Your task to perform on an android device: Show the shopping cart on ebay.com. Search for "dell xps" on ebay.com, select the first entry, and add it to the cart. Image 0: 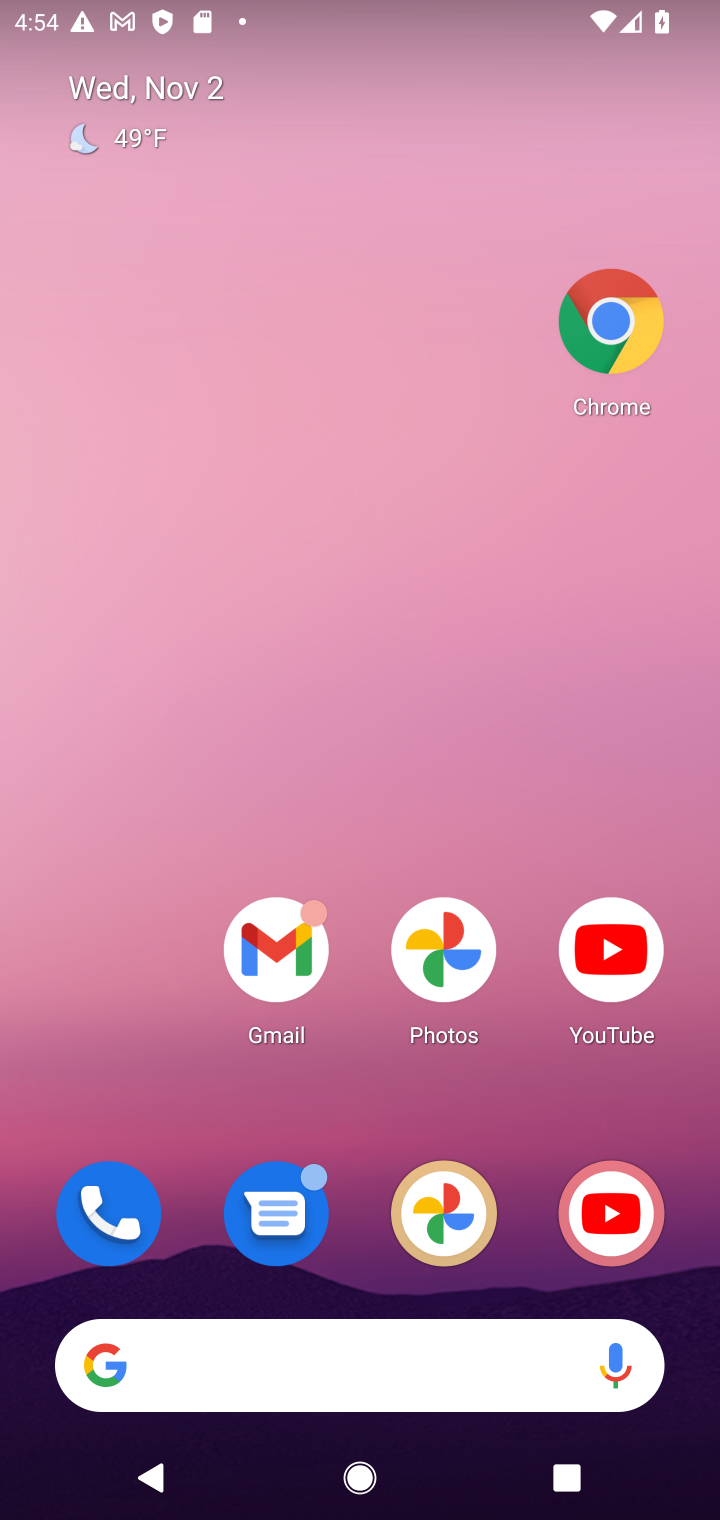
Step 0: drag from (154, 1012) to (273, 27)
Your task to perform on an android device: Show the shopping cart on ebay.com. Search for "dell xps" on ebay.com, select the first entry, and add it to the cart. Image 1: 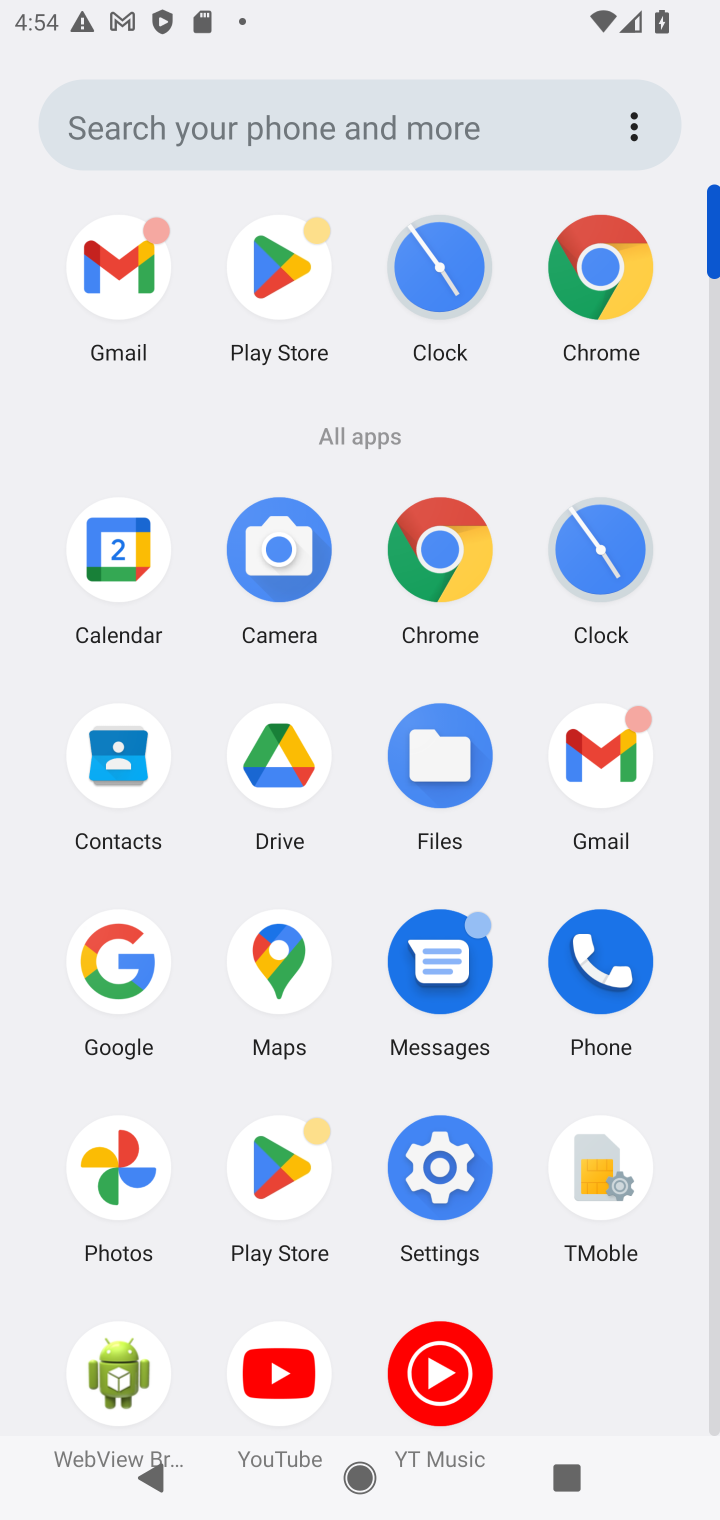
Step 1: click (131, 1000)
Your task to perform on an android device: Show the shopping cart on ebay.com. Search for "dell xps" on ebay.com, select the first entry, and add it to the cart. Image 2: 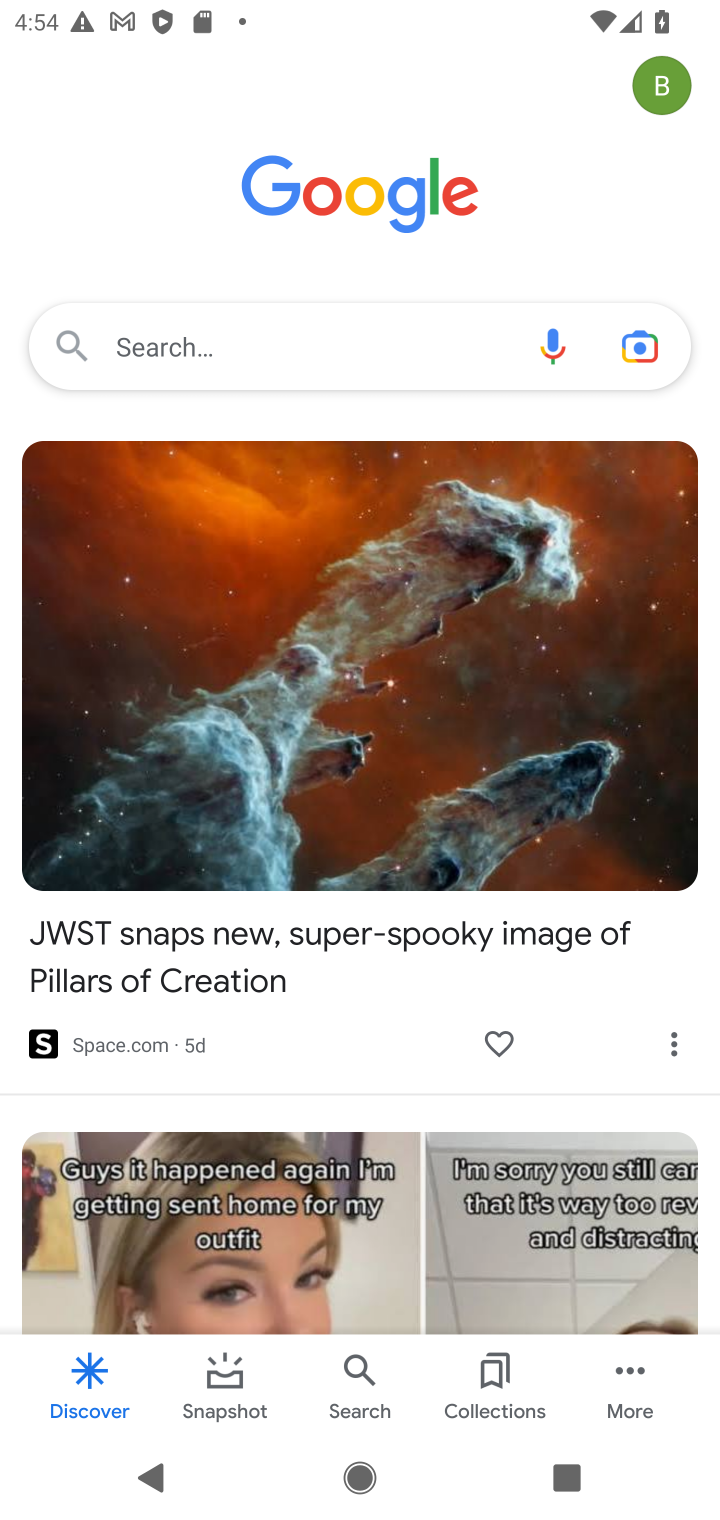
Step 2: click (217, 357)
Your task to perform on an android device: Show the shopping cart on ebay.com. Search for "dell xps" on ebay.com, select the first entry, and add it to the cart. Image 3: 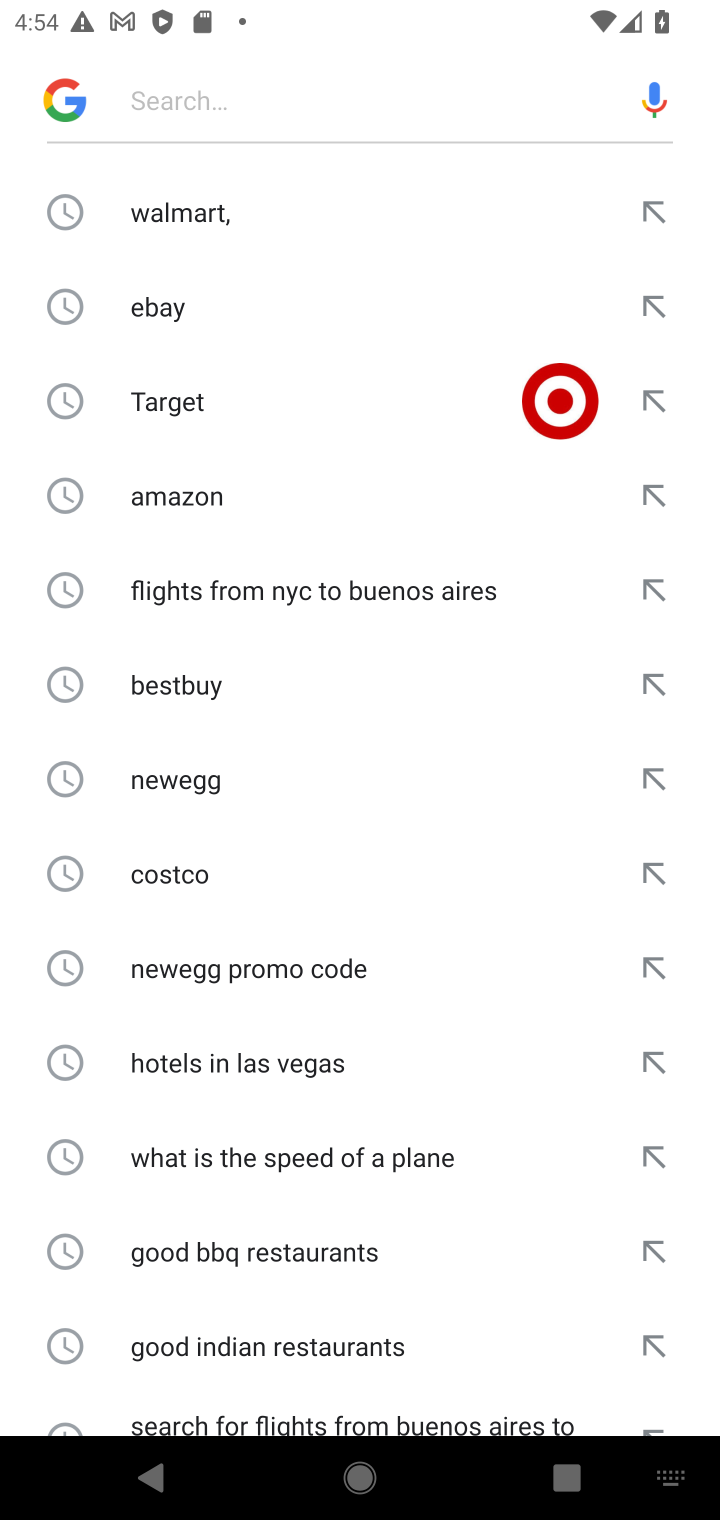
Step 3: type "ebay.com"
Your task to perform on an android device: Show the shopping cart on ebay.com. Search for "dell xps" on ebay.com, select the first entry, and add it to the cart. Image 4: 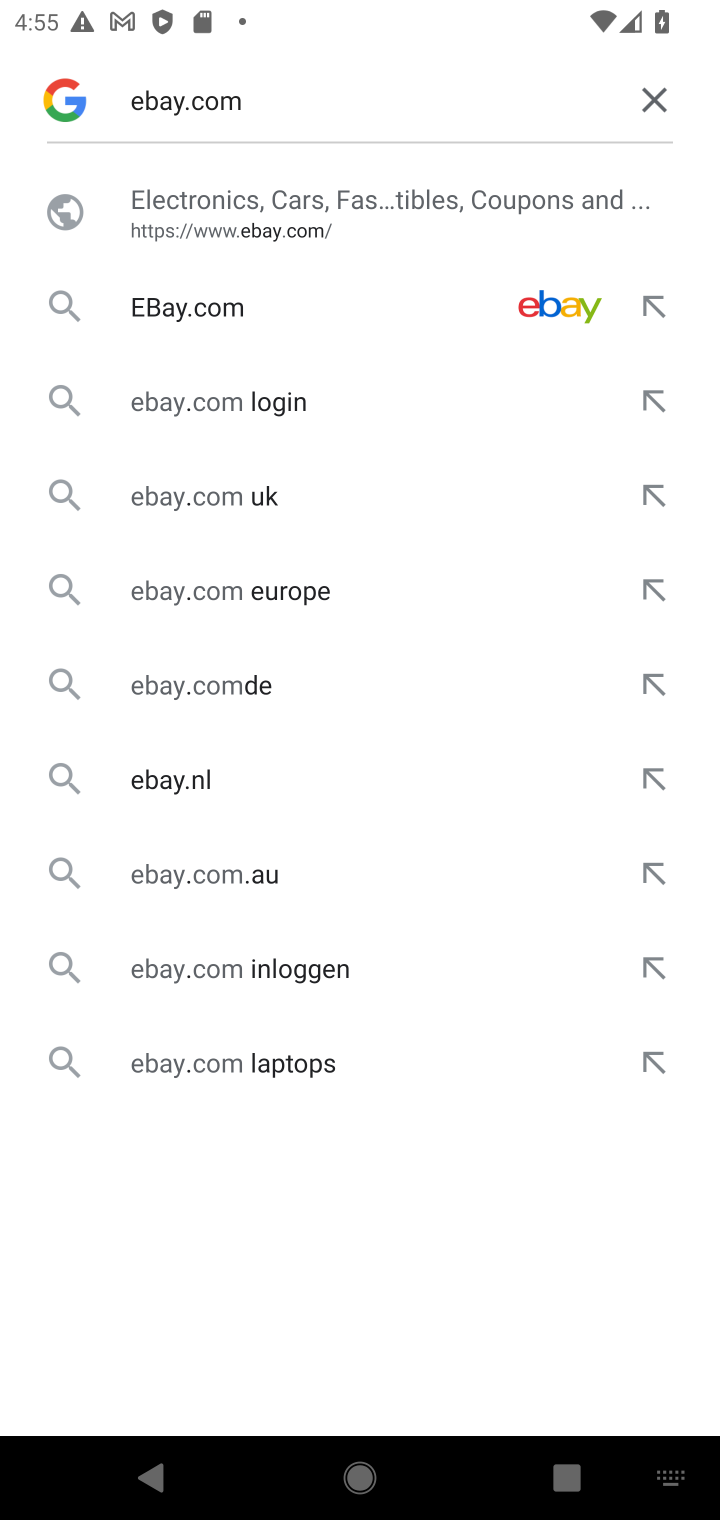
Step 4: click (398, 255)
Your task to perform on an android device: Show the shopping cart on ebay.com. Search for "dell xps" on ebay.com, select the first entry, and add it to the cart. Image 5: 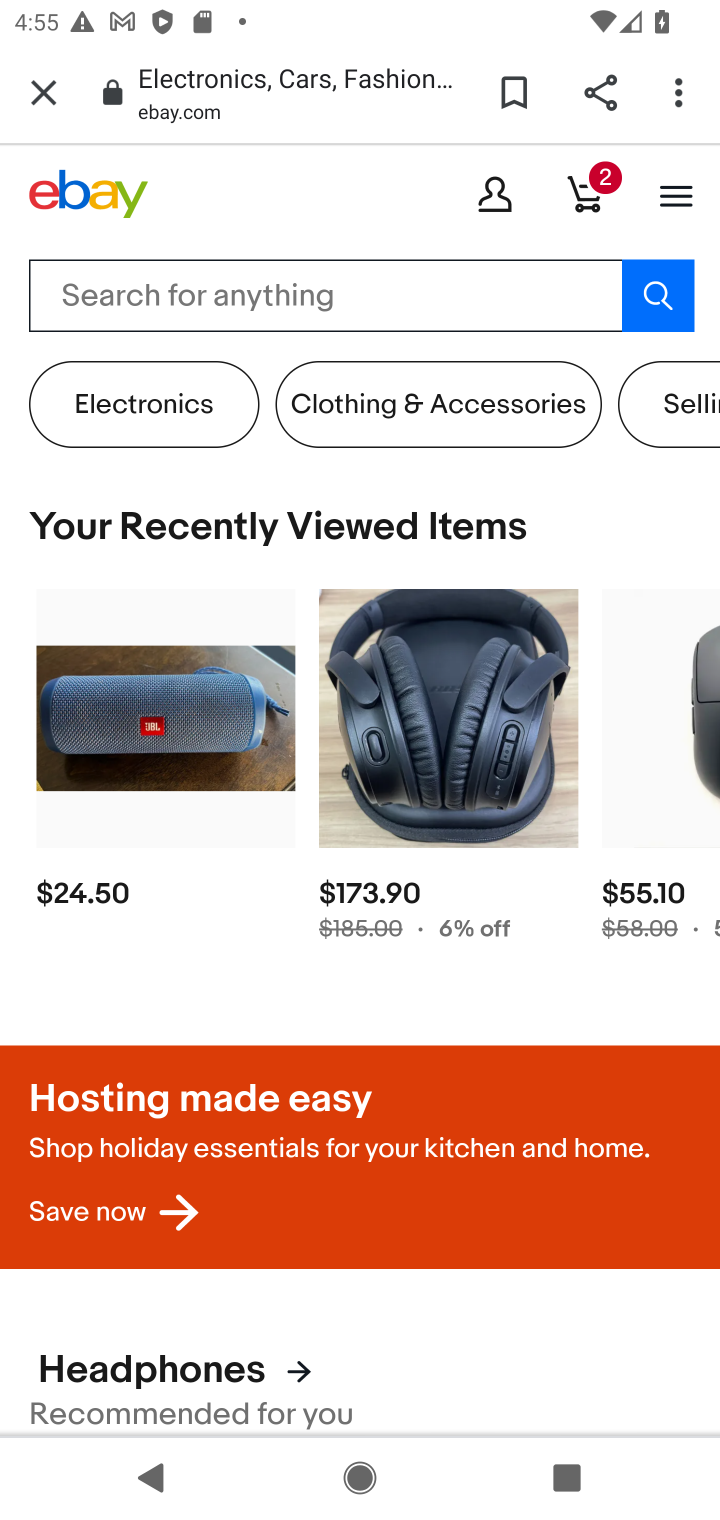
Step 5: click (386, 300)
Your task to perform on an android device: Show the shopping cart on ebay.com. Search for "dell xps" on ebay.com, select the first entry, and add it to the cart. Image 6: 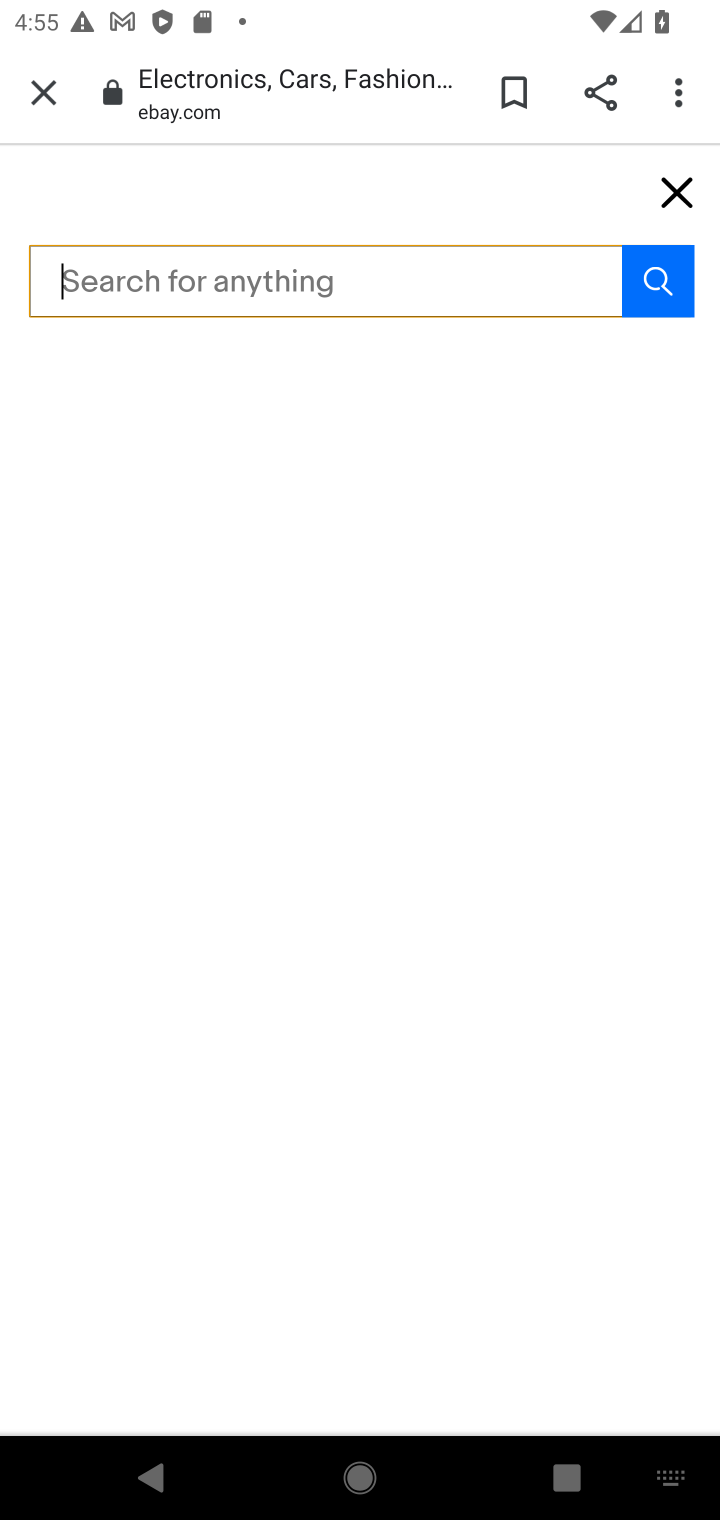
Step 6: type "dell xps"
Your task to perform on an android device: Show the shopping cart on ebay.com. Search for "dell xps" on ebay.com, select the first entry, and add it to the cart. Image 7: 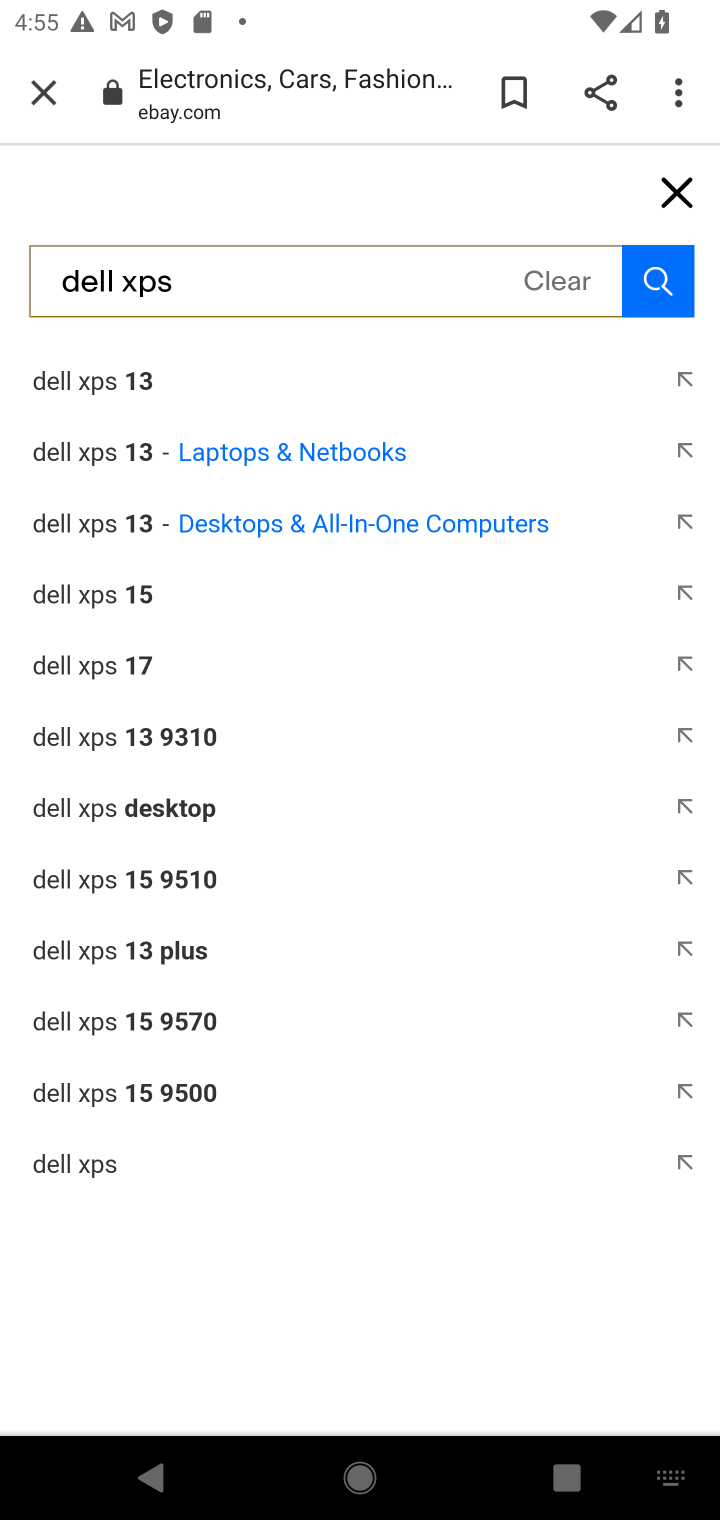
Step 7: click (104, 1173)
Your task to perform on an android device: Show the shopping cart on ebay.com. Search for "dell xps" on ebay.com, select the first entry, and add it to the cart. Image 8: 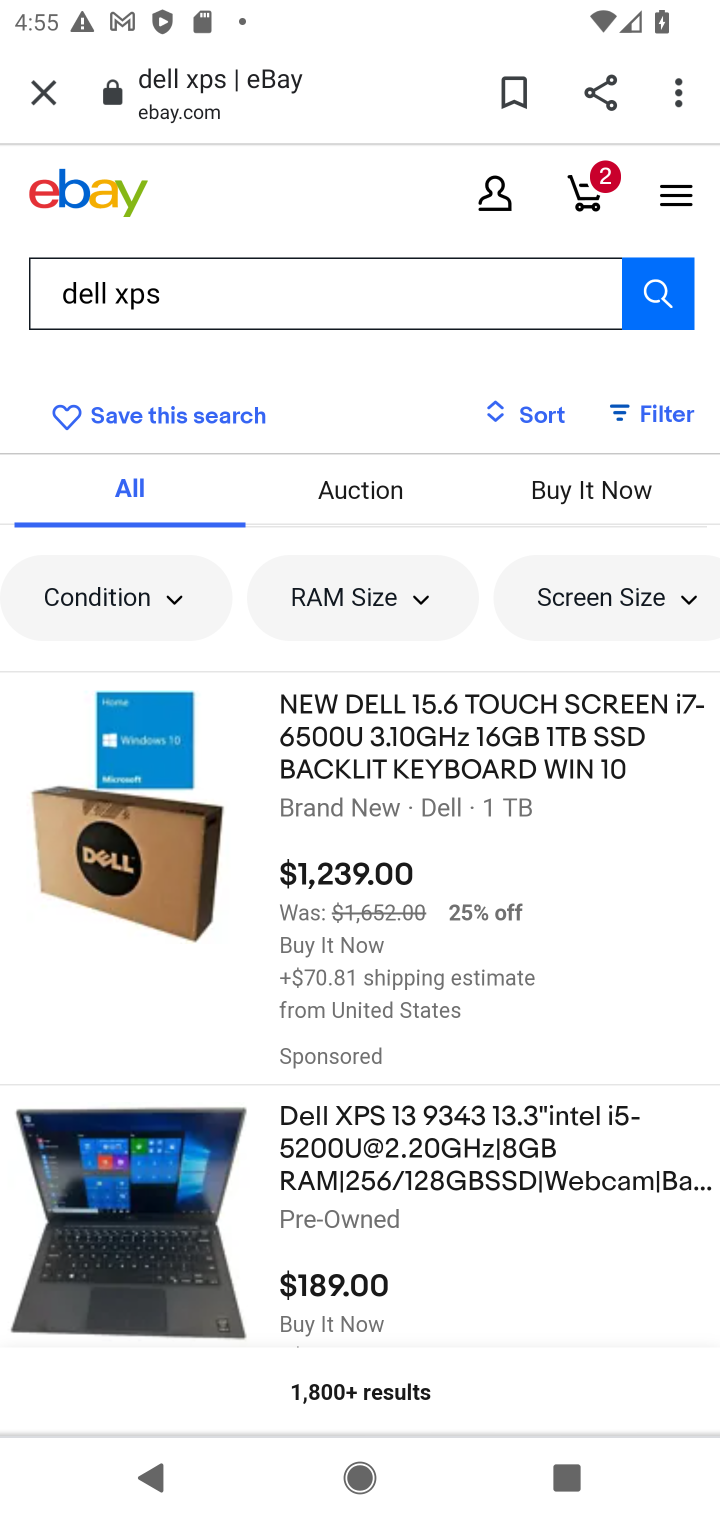
Step 8: click (393, 767)
Your task to perform on an android device: Show the shopping cart on ebay.com. Search for "dell xps" on ebay.com, select the first entry, and add it to the cart. Image 9: 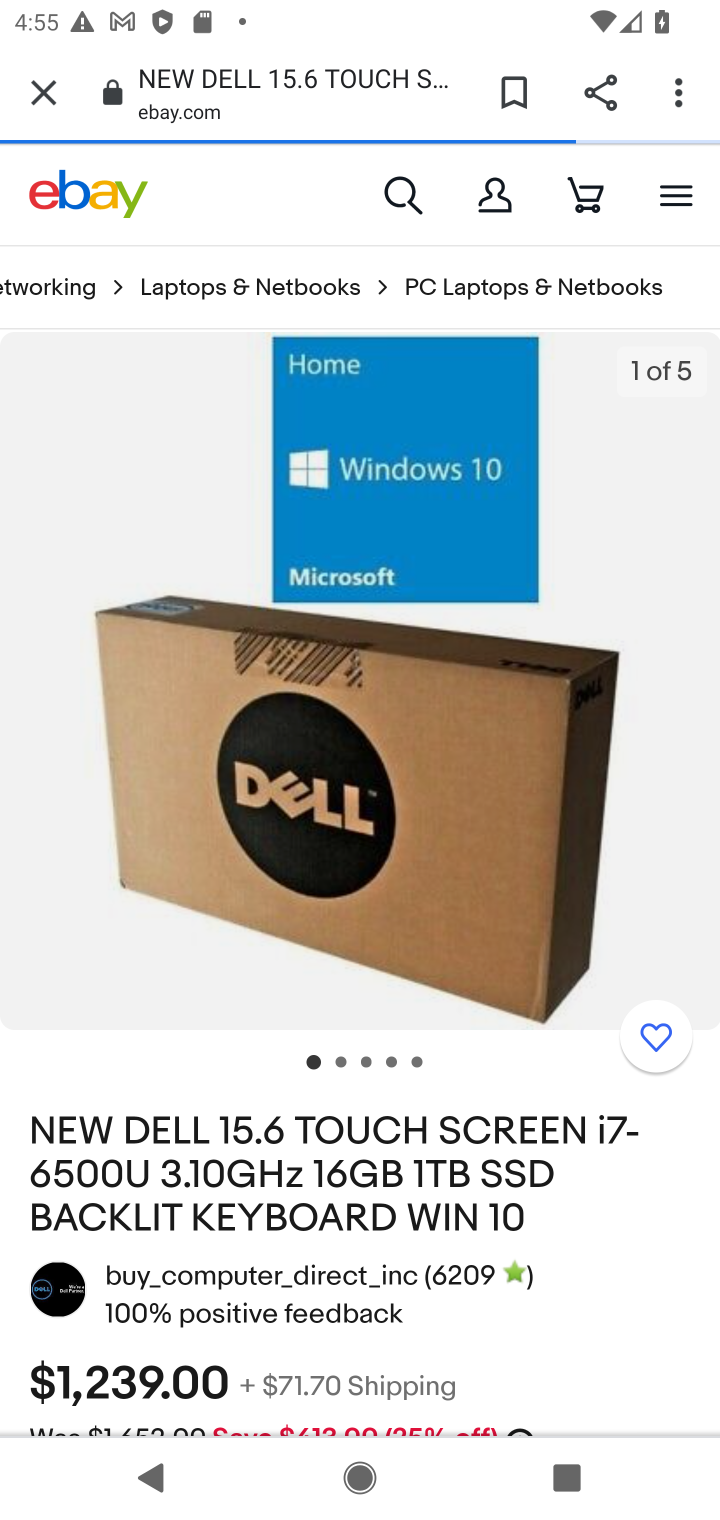
Step 9: drag from (496, 1071) to (405, 579)
Your task to perform on an android device: Show the shopping cart on ebay.com. Search for "dell xps" on ebay.com, select the first entry, and add it to the cart. Image 10: 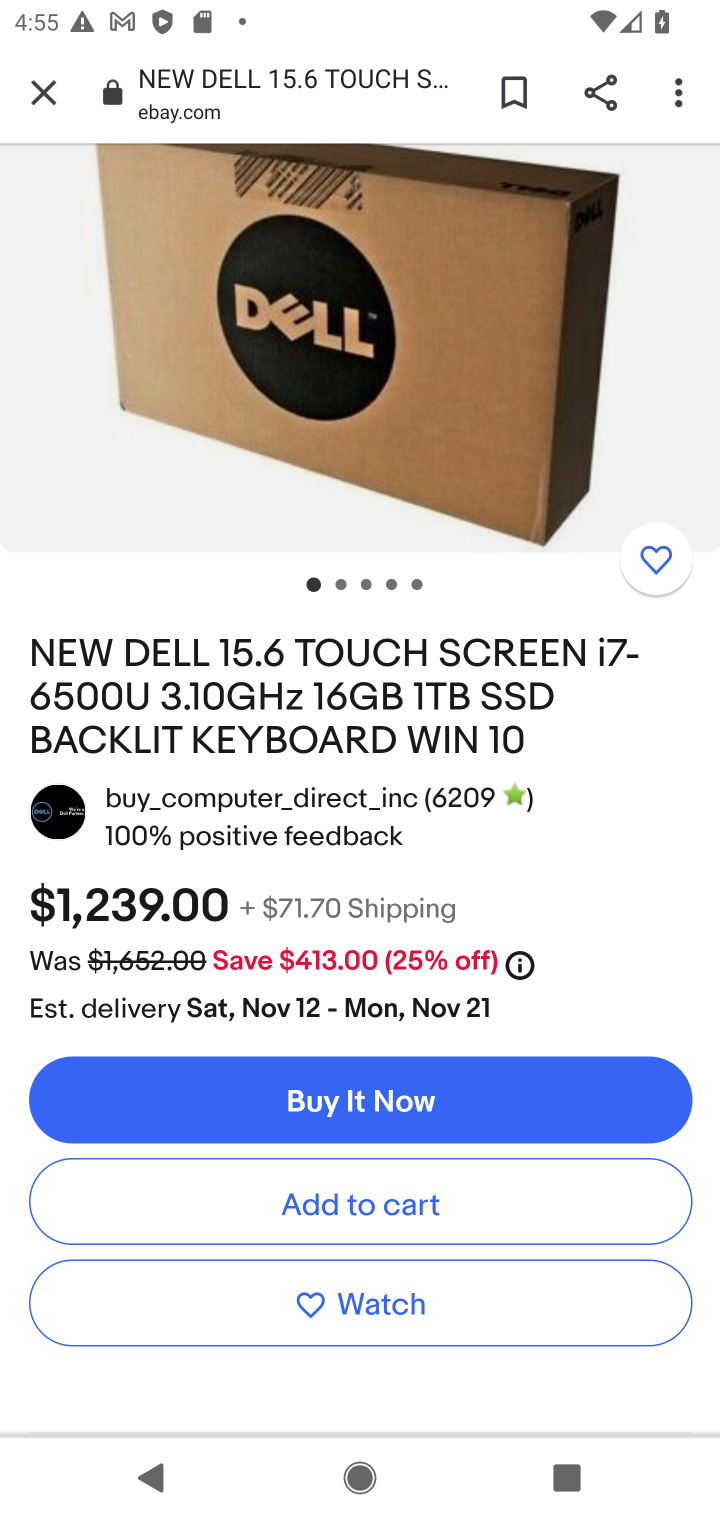
Step 10: click (459, 1215)
Your task to perform on an android device: Show the shopping cart on ebay.com. Search for "dell xps" on ebay.com, select the first entry, and add it to the cart. Image 11: 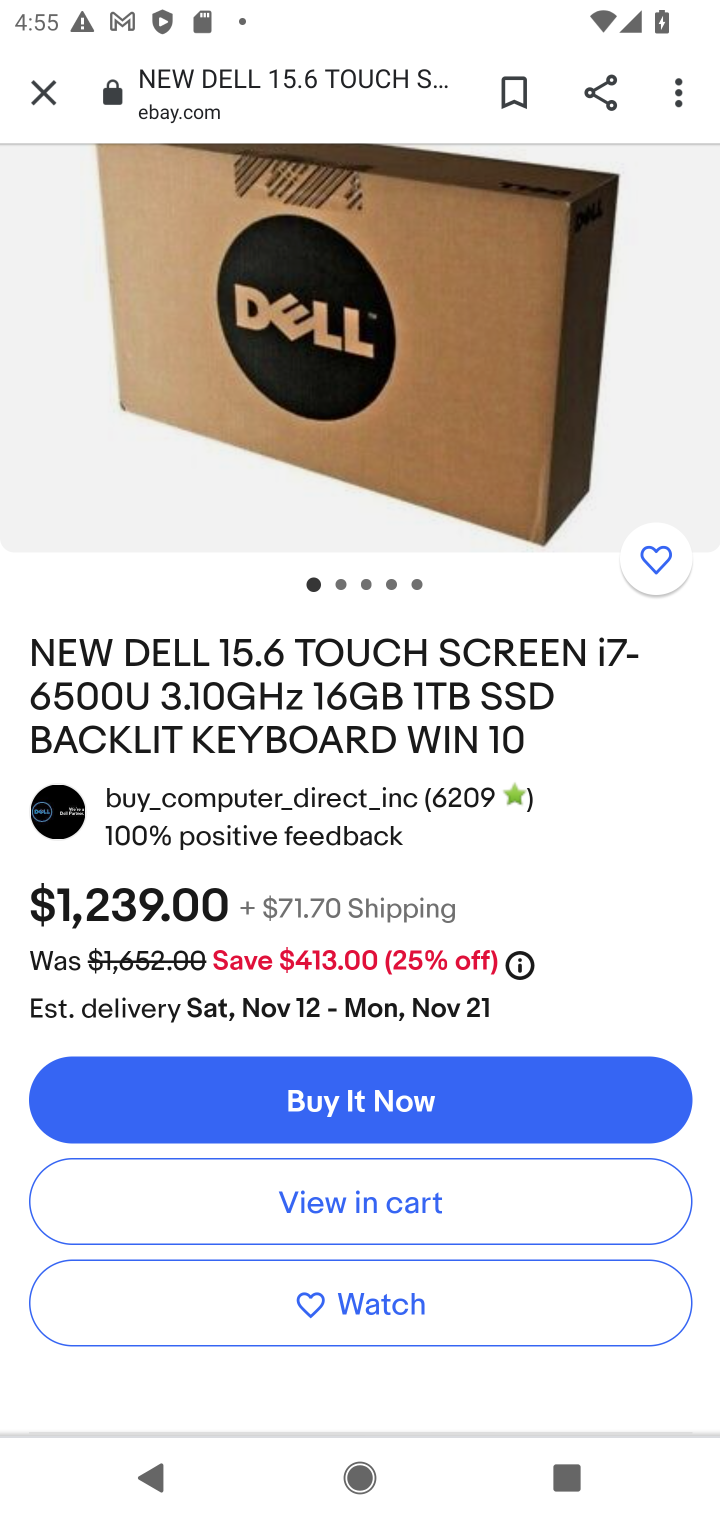
Step 11: task complete